Your task to perform on an android device: Open the stopwatch Image 0: 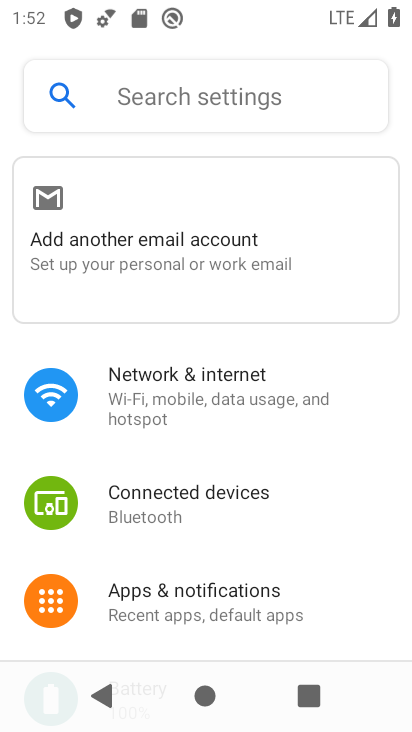
Step 0: press home button
Your task to perform on an android device: Open the stopwatch Image 1: 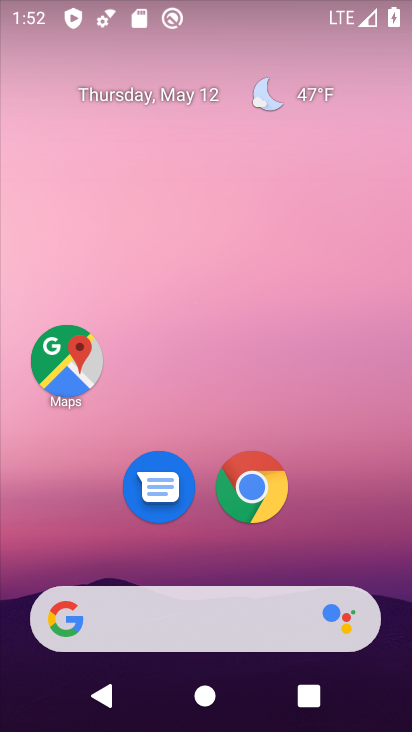
Step 1: drag from (322, 479) to (313, 63)
Your task to perform on an android device: Open the stopwatch Image 2: 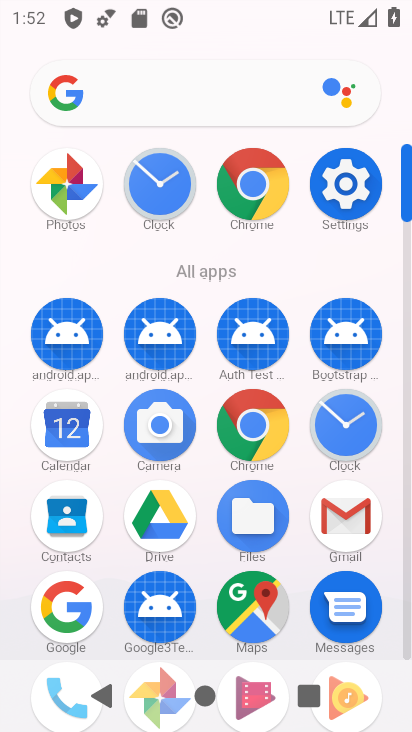
Step 2: click (349, 422)
Your task to perform on an android device: Open the stopwatch Image 3: 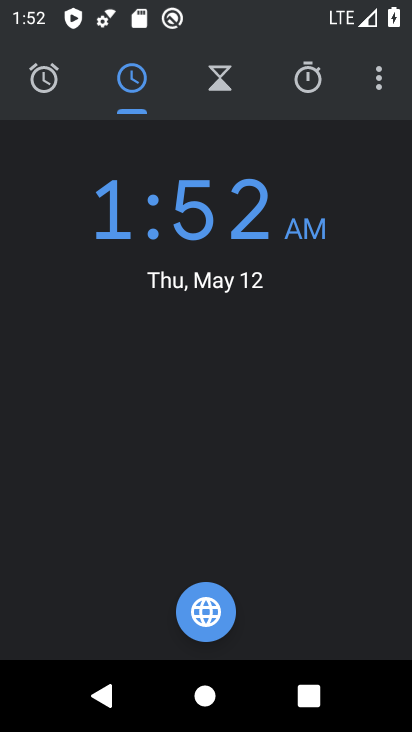
Step 3: click (309, 78)
Your task to perform on an android device: Open the stopwatch Image 4: 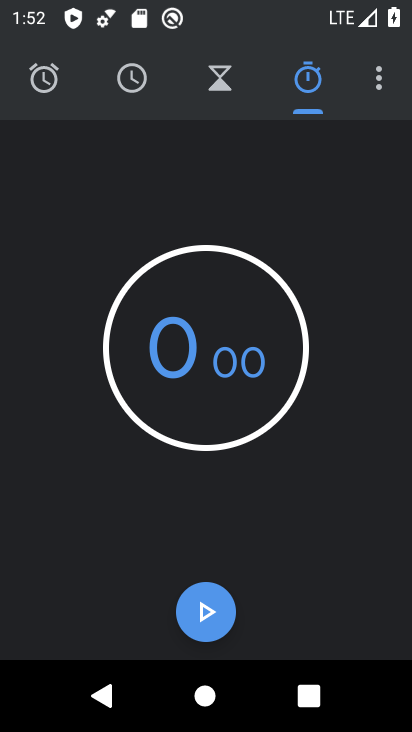
Step 4: task complete